Your task to perform on an android device: add a contact in the contacts app Image 0: 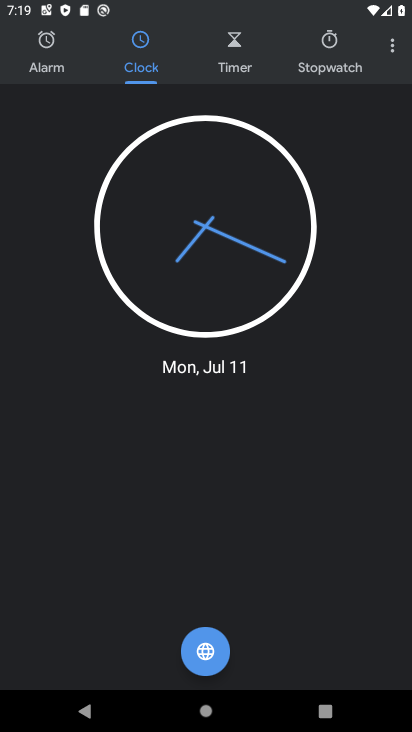
Step 0: press home button
Your task to perform on an android device: add a contact in the contacts app Image 1: 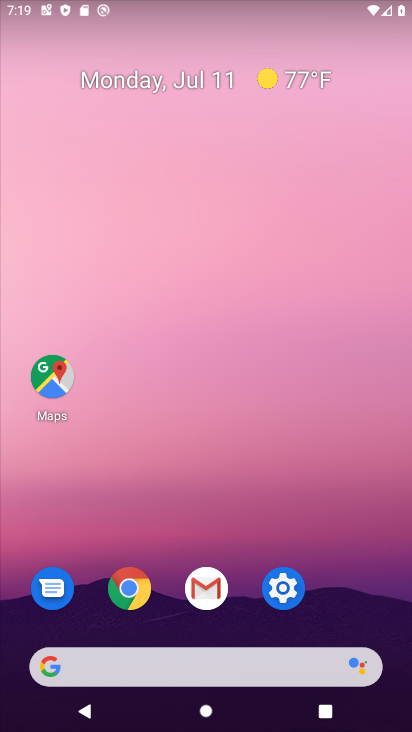
Step 1: click (278, 603)
Your task to perform on an android device: add a contact in the contacts app Image 2: 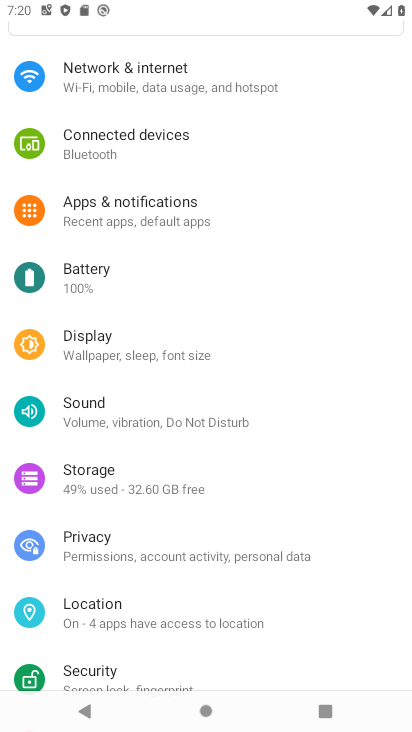
Step 2: press home button
Your task to perform on an android device: add a contact in the contacts app Image 3: 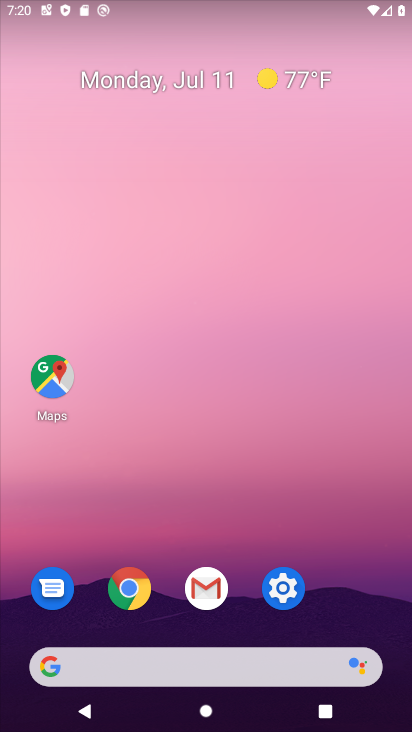
Step 3: drag from (231, 689) to (410, 144)
Your task to perform on an android device: add a contact in the contacts app Image 4: 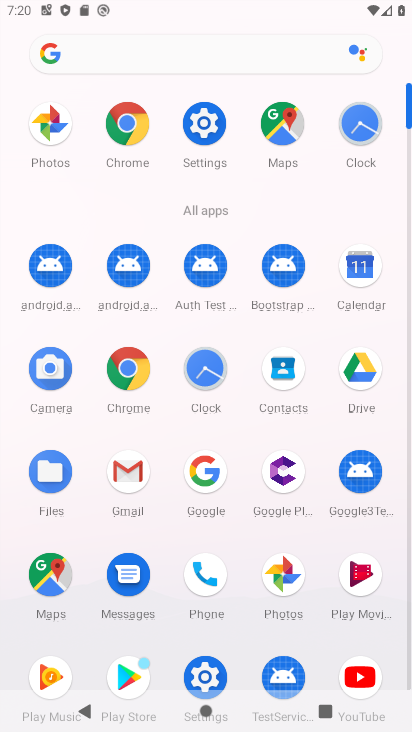
Step 4: click (205, 566)
Your task to perform on an android device: add a contact in the contacts app Image 5: 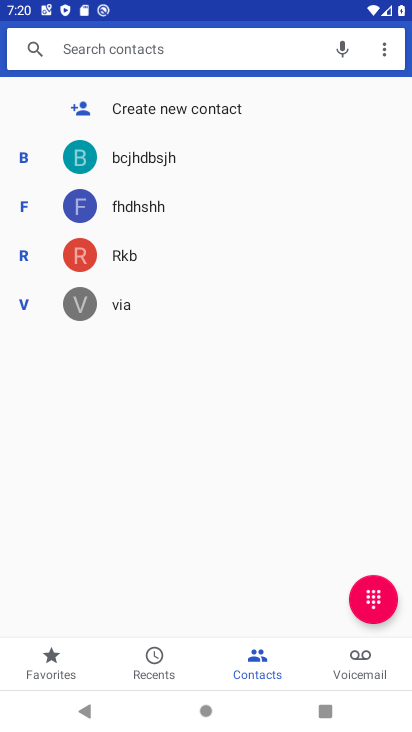
Step 5: click (187, 104)
Your task to perform on an android device: add a contact in the contacts app Image 6: 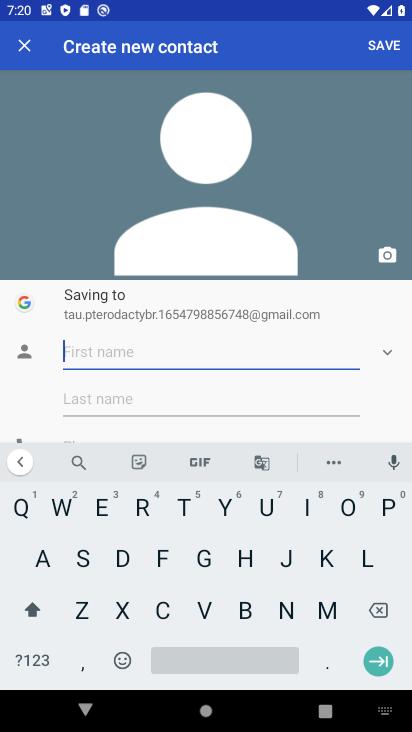
Step 6: click (137, 509)
Your task to perform on an android device: add a contact in the contacts app Image 7: 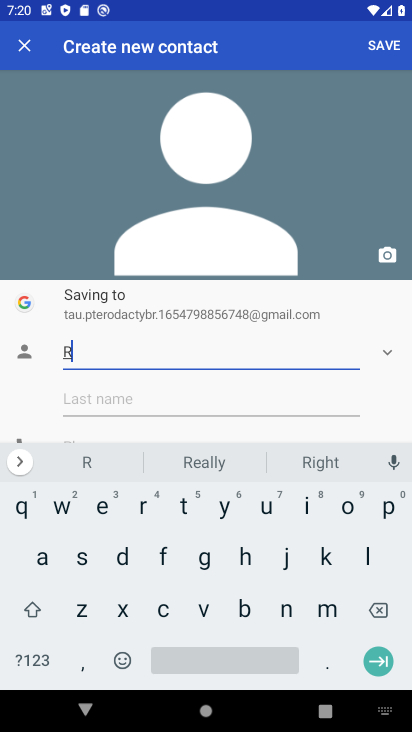
Step 7: click (321, 614)
Your task to perform on an android device: add a contact in the contacts app Image 8: 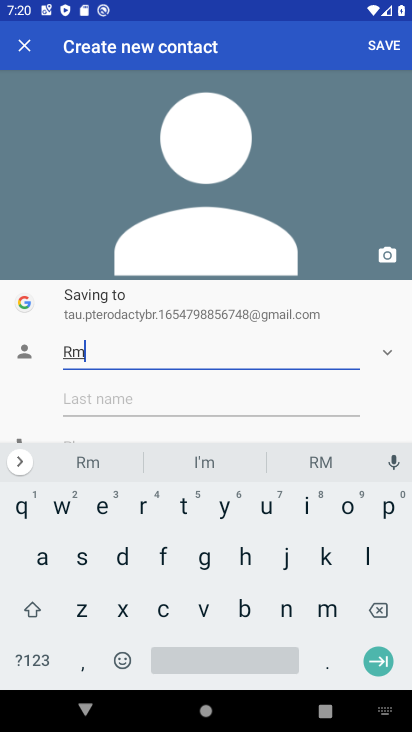
Step 8: click (139, 425)
Your task to perform on an android device: add a contact in the contacts app Image 9: 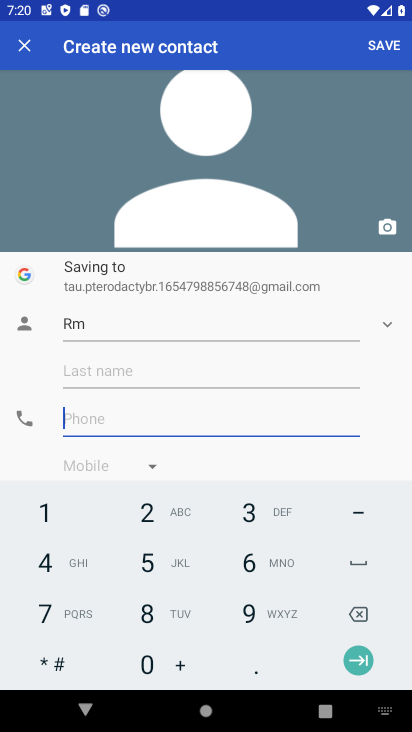
Step 9: click (50, 523)
Your task to perform on an android device: add a contact in the contacts app Image 10: 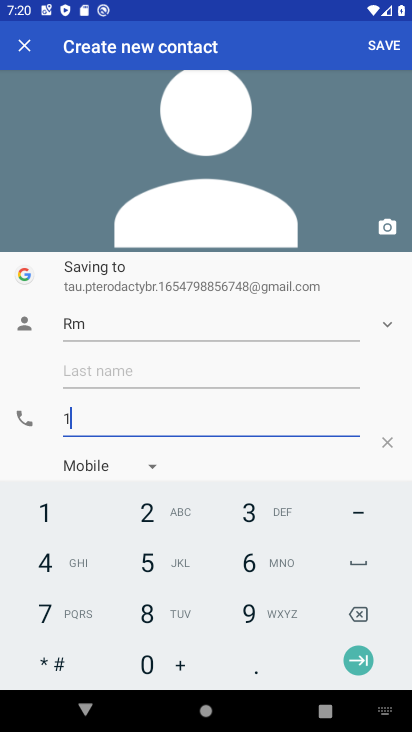
Step 10: click (45, 564)
Your task to perform on an android device: add a contact in the contacts app Image 11: 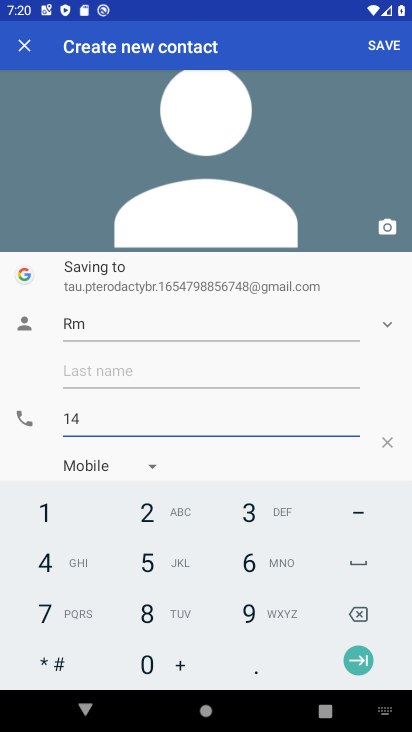
Step 11: click (151, 566)
Your task to perform on an android device: add a contact in the contacts app Image 12: 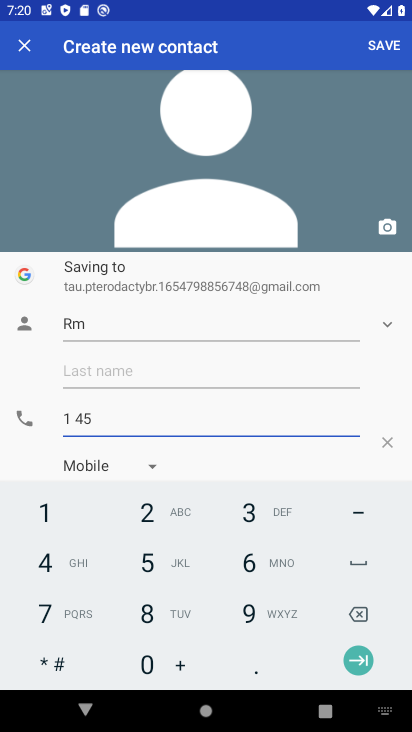
Step 12: click (145, 603)
Your task to perform on an android device: add a contact in the contacts app Image 13: 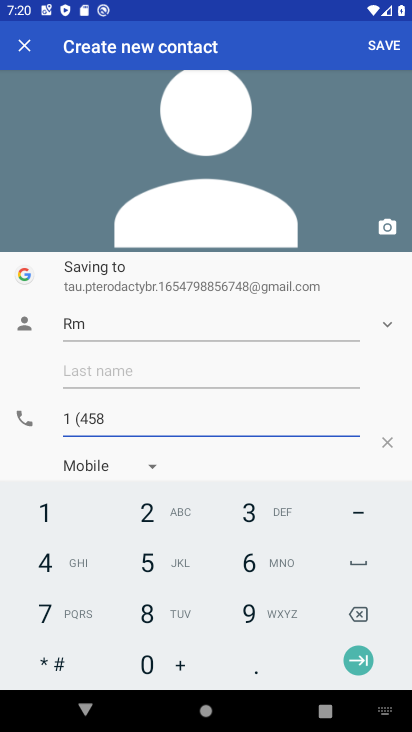
Step 13: click (244, 508)
Your task to perform on an android device: add a contact in the contacts app Image 14: 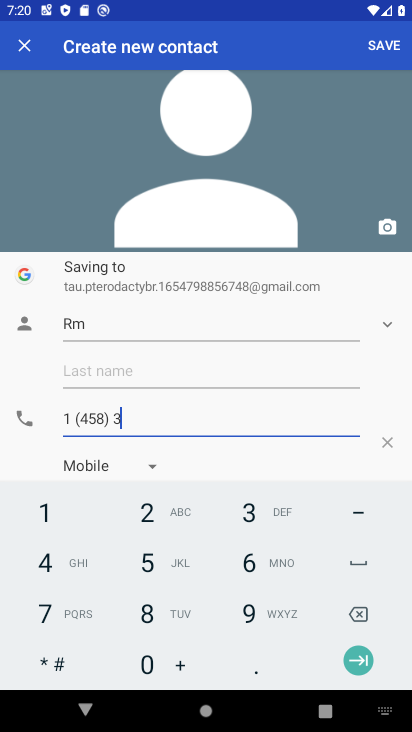
Step 14: click (387, 40)
Your task to perform on an android device: add a contact in the contacts app Image 15: 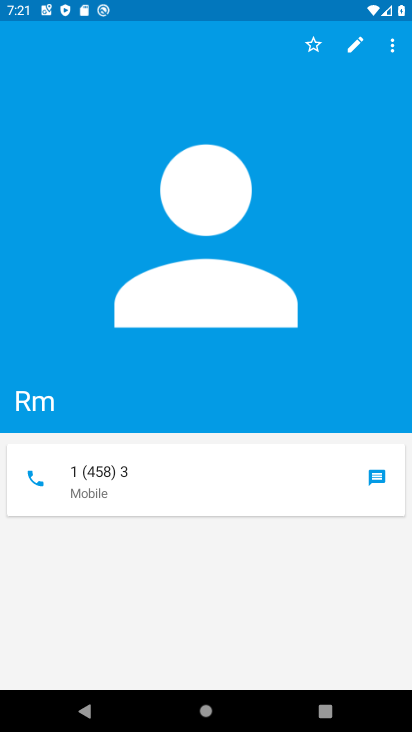
Step 15: task complete